Your task to perform on an android device: Go to eBay Image 0: 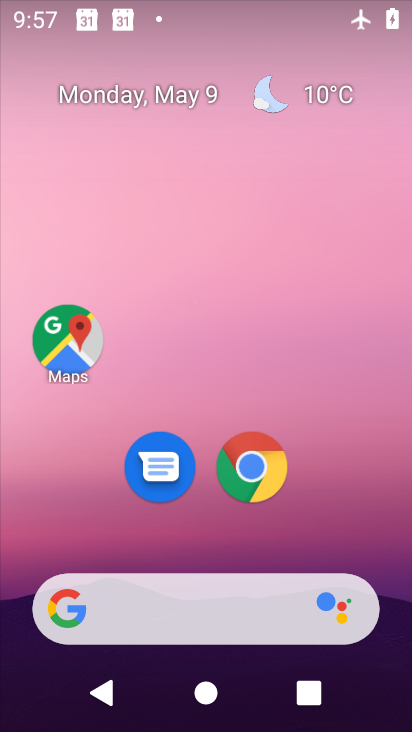
Step 0: click (276, 479)
Your task to perform on an android device: Go to eBay Image 1: 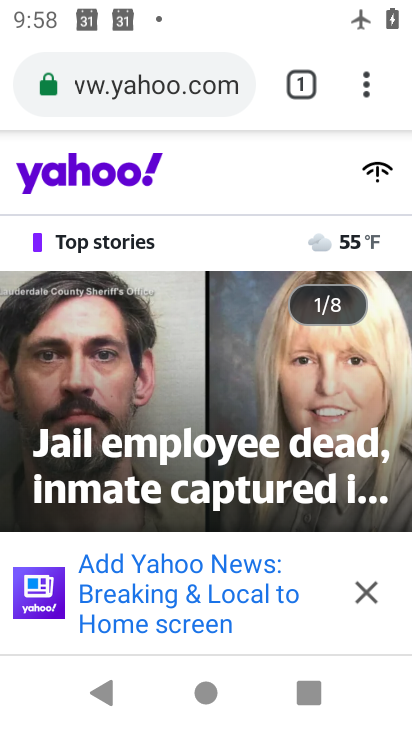
Step 1: click (119, 94)
Your task to perform on an android device: Go to eBay Image 2: 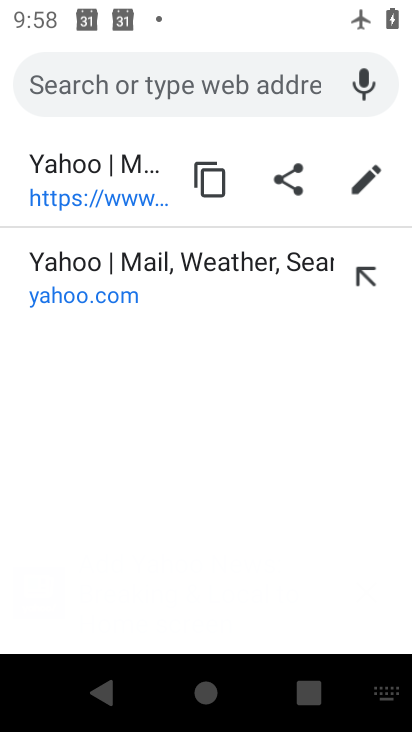
Step 2: type "ebay"
Your task to perform on an android device: Go to eBay Image 3: 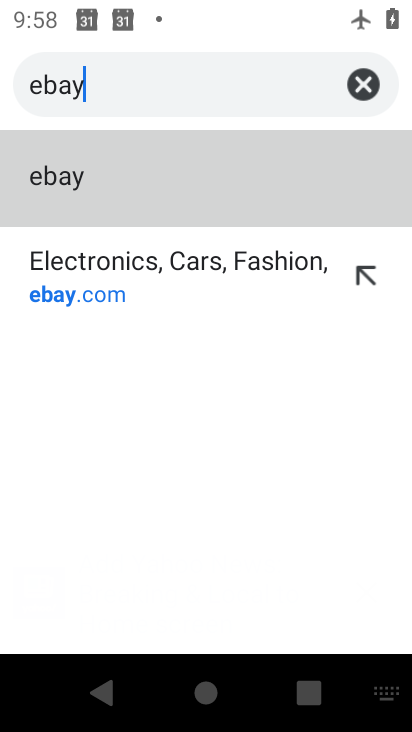
Step 3: click (48, 186)
Your task to perform on an android device: Go to eBay Image 4: 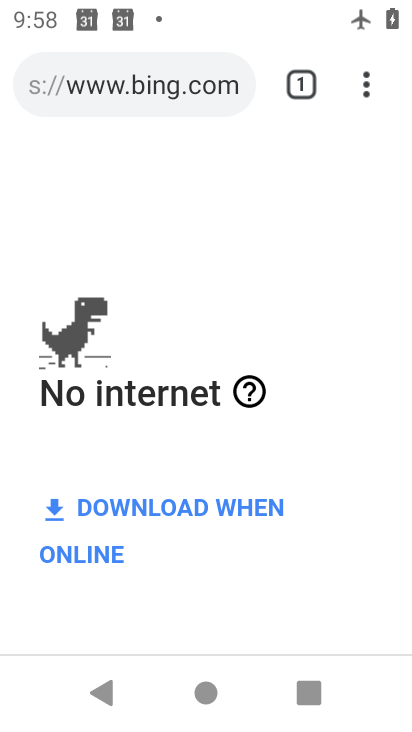
Step 4: task complete